Your task to perform on an android device: Do I have any events this weekend? Image 0: 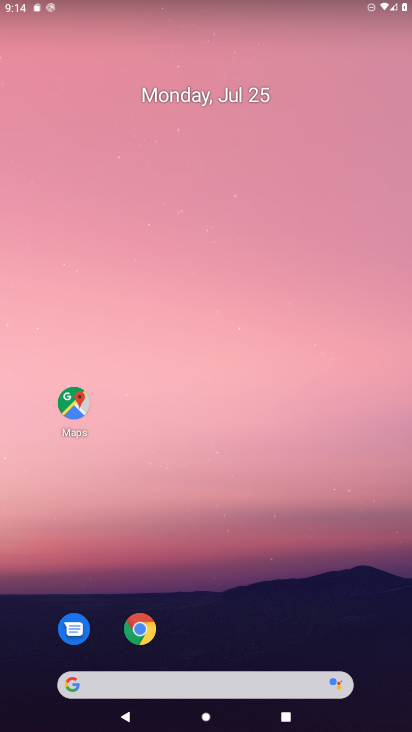
Step 0: drag from (285, 606) to (272, 14)
Your task to perform on an android device: Do I have any events this weekend? Image 1: 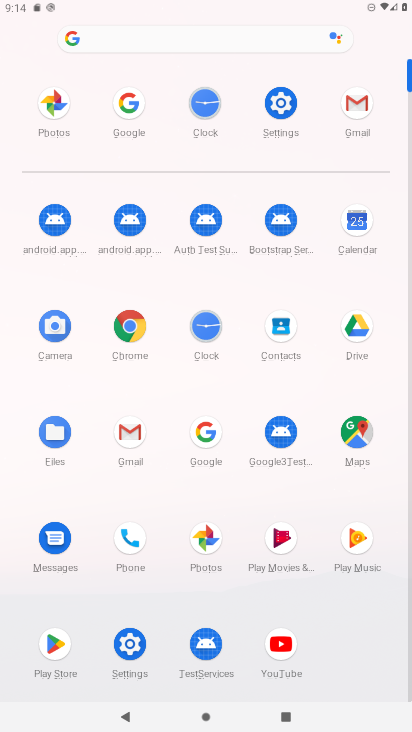
Step 1: click (361, 225)
Your task to perform on an android device: Do I have any events this weekend? Image 2: 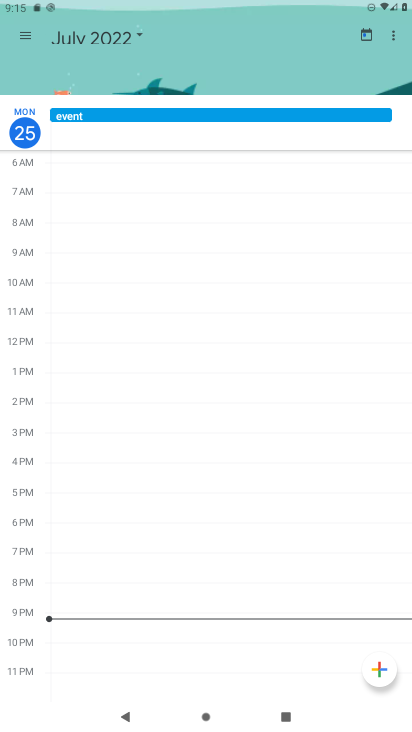
Step 2: click (27, 30)
Your task to perform on an android device: Do I have any events this weekend? Image 3: 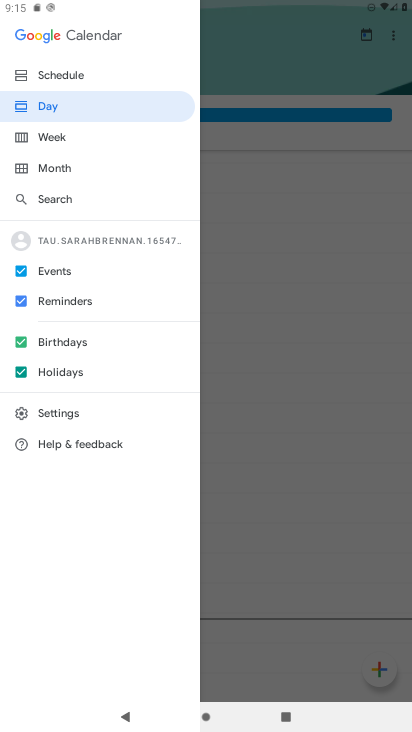
Step 3: click (22, 373)
Your task to perform on an android device: Do I have any events this weekend? Image 4: 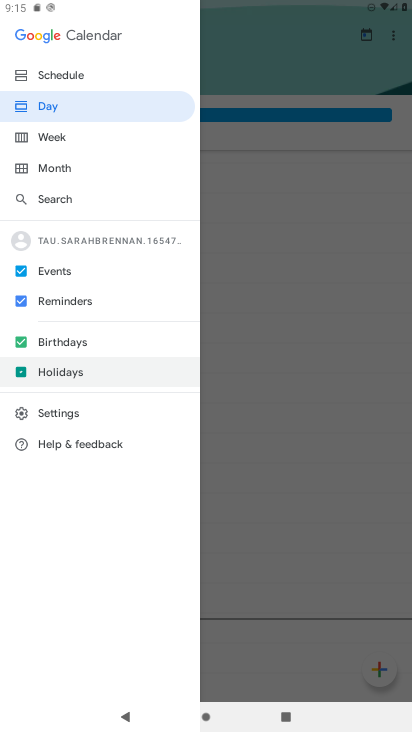
Step 4: click (22, 334)
Your task to perform on an android device: Do I have any events this weekend? Image 5: 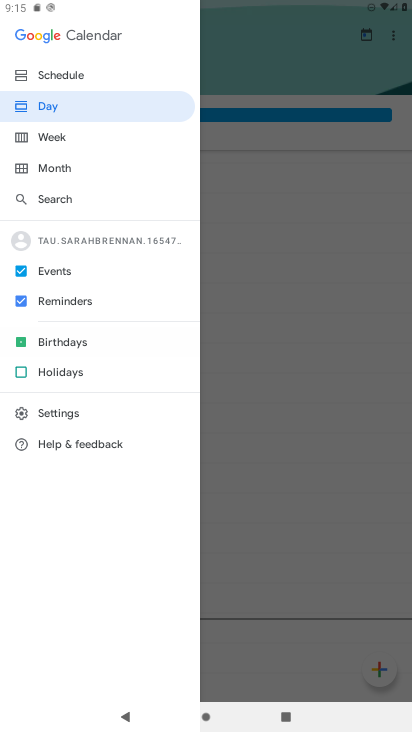
Step 5: click (20, 301)
Your task to perform on an android device: Do I have any events this weekend? Image 6: 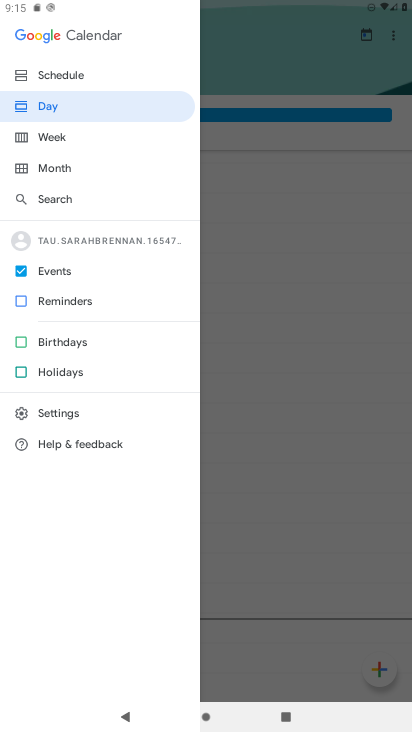
Step 6: click (44, 141)
Your task to perform on an android device: Do I have any events this weekend? Image 7: 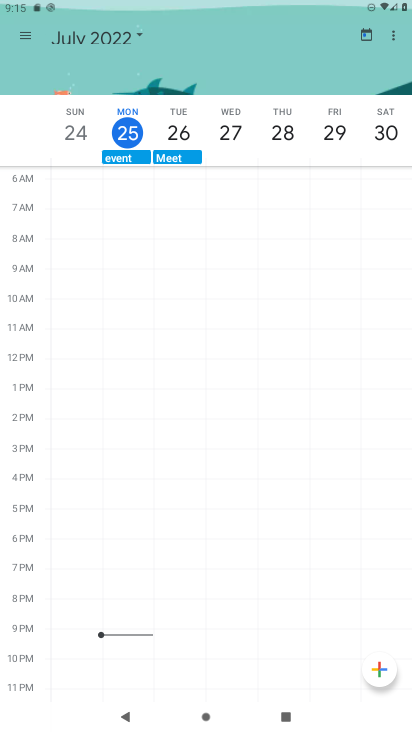
Step 7: task complete